Your task to perform on an android device: What is the news today? Image 0: 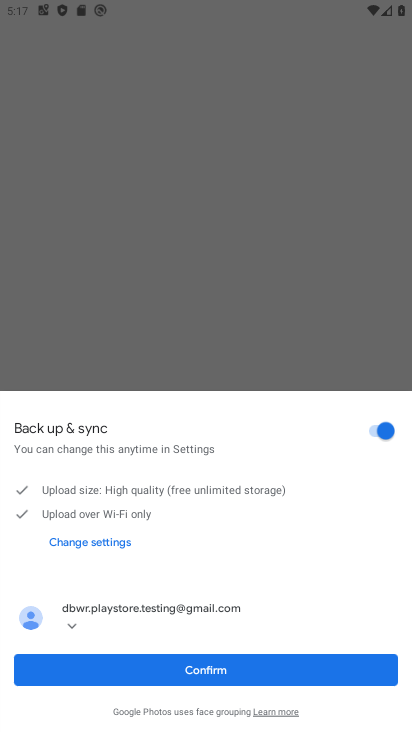
Step 0: press home button
Your task to perform on an android device: What is the news today? Image 1: 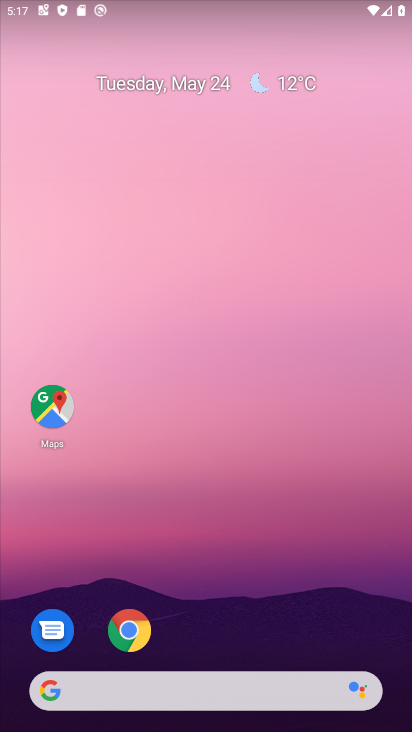
Step 1: click (176, 692)
Your task to perform on an android device: What is the news today? Image 2: 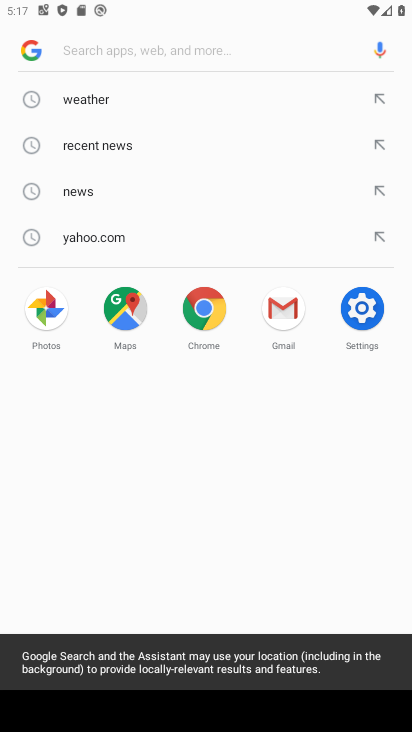
Step 2: click (139, 47)
Your task to perform on an android device: What is the news today? Image 3: 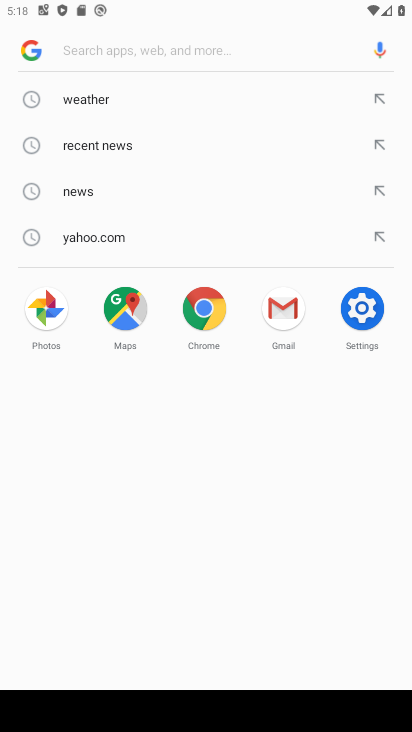
Step 3: type "news today"
Your task to perform on an android device: What is the news today? Image 4: 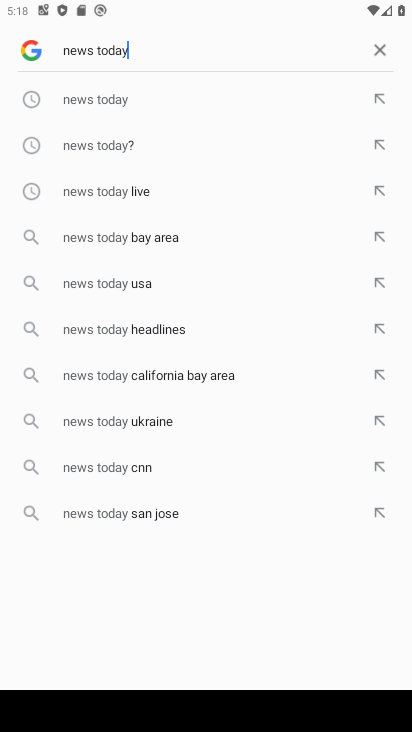
Step 4: click (113, 112)
Your task to perform on an android device: What is the news today? Image 5: 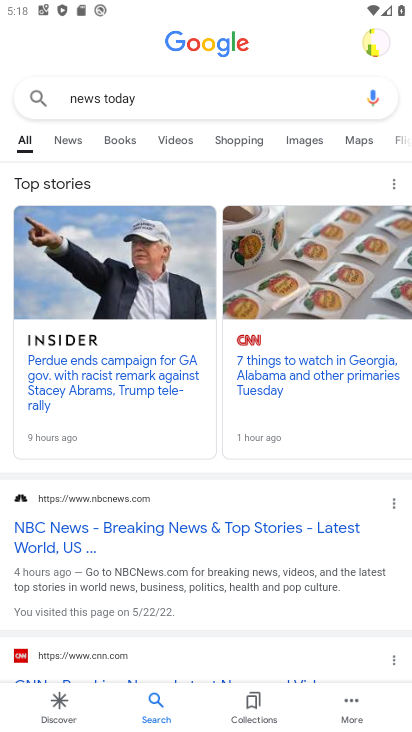
Step 5: task complete